Your task to perform on an android device: Open the stopwatch Image 0: 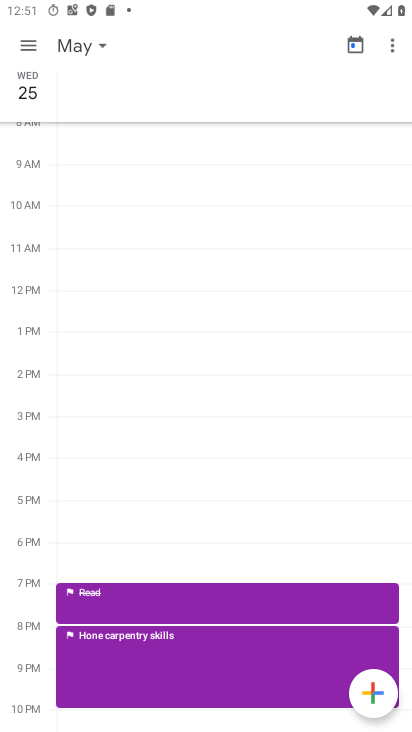
Step 0: press home button
Your task to perform on an android device: Open the stopwatch Image 1: 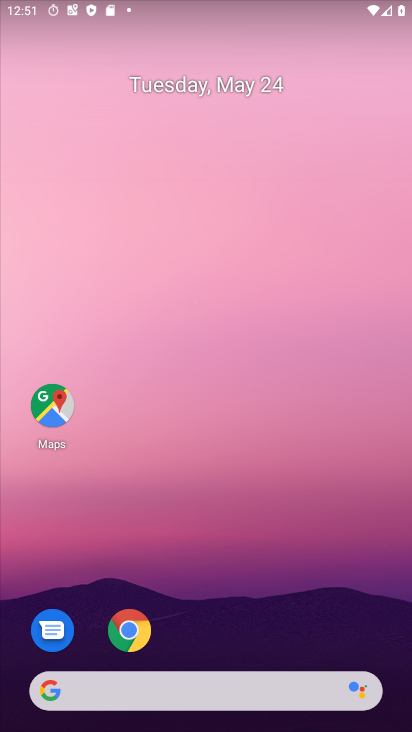
Step 1: drag from (241, 649) to (270, 5)
Your task to perform on an android device: Open the stopwatch Image 2: 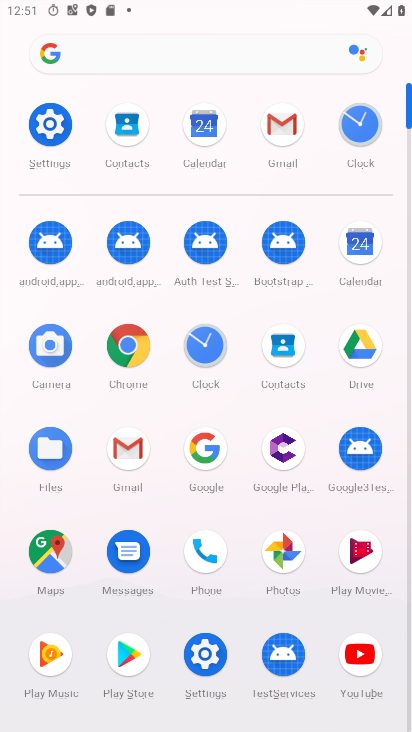
Step 2: click (367, 129)
Your task to perform on an android device: Open the stopwatch Image 3: 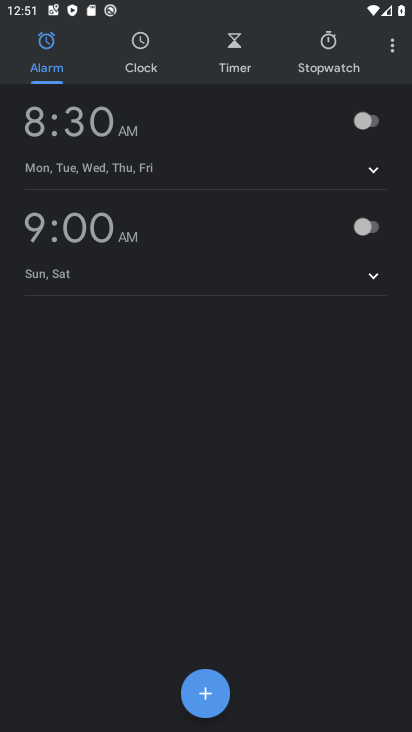
Step 3: click (335, 54)
Your task to perform on an android device: Open the stopwatch Image 4: 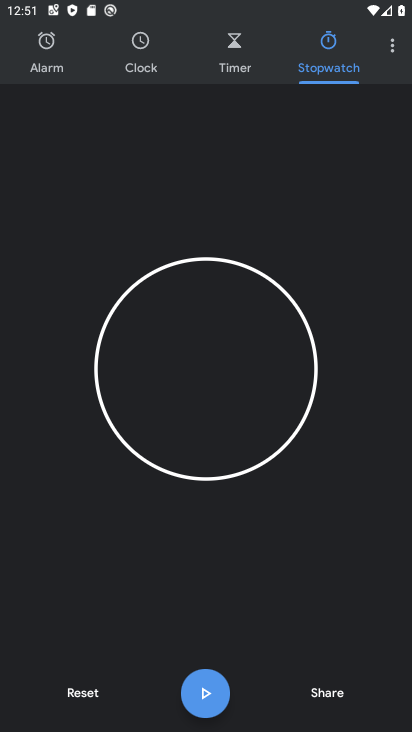
Step 4: task complete